Your task to perform on an android device: delete the emails in spam in the gmail app Image 0: 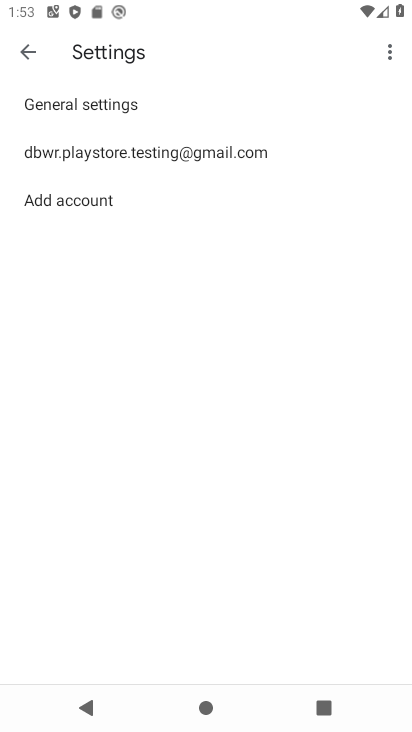
Step 0: press home button
Your task to perform on an android device: delete the emails in spam in the gmail app Image 1: 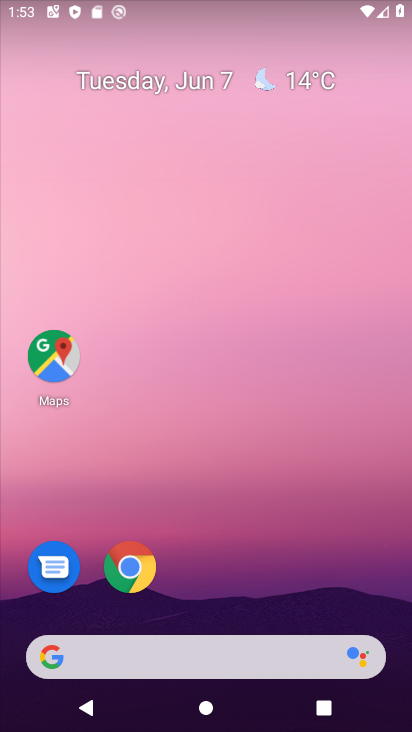
Step 1: drag from (302, 551) to (0, 172)
Your task to perform on an android device: delete the emails in spam in the gmail app Image 2: 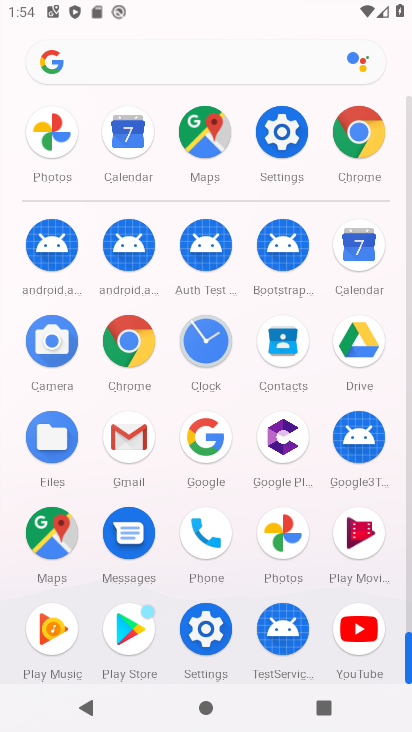
Step 2: click (134, 450)
Your task to perform on an android device: delete the emails in spam in the gmail app Image 3: 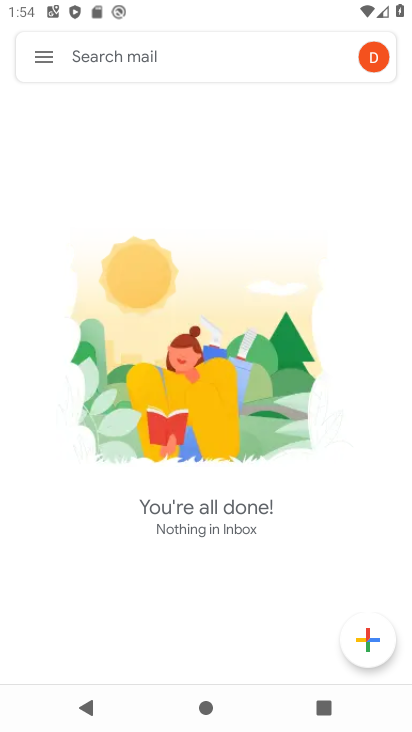
Step 3: click (50, 48)
Your task to perform on an android device: delete the emails in spam in the gmail app Image 4: 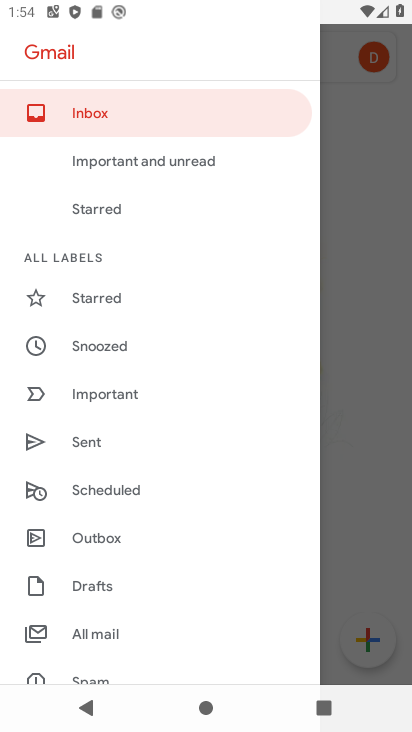
Step 4: drag from (146, 622) to (144, 117)
Your task to perform on an android device: delete the emails in spam in the gmail app Image 5: 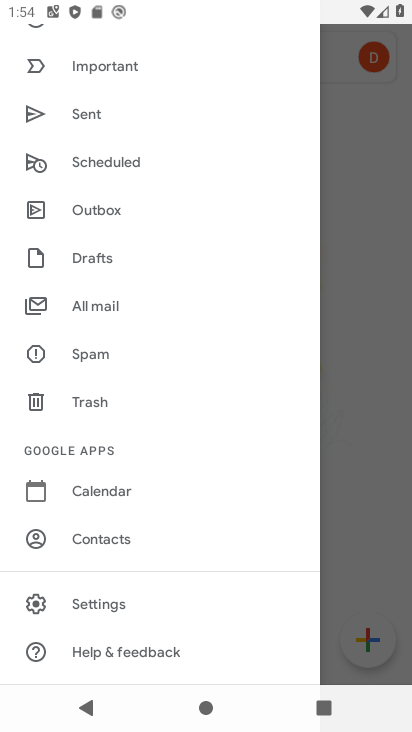
Step 5: click (95, 359)
Your task to perform on an android device: delete the emails in spam in the gmail app Image 6: 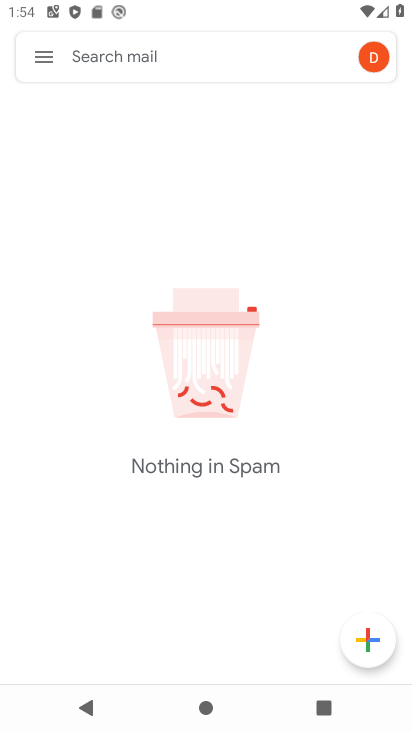
Step 6: task complete